Your task to perform on an android device: toggle notification dots Image 0: 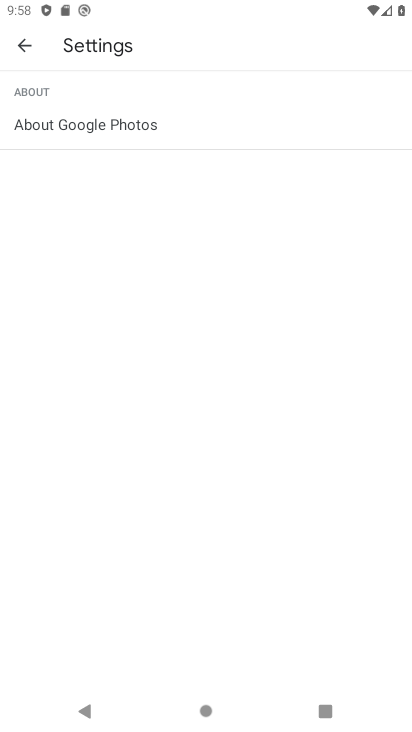
Step 0: press home button
Your task to perform on an android device: toggle notification dots Image 1: 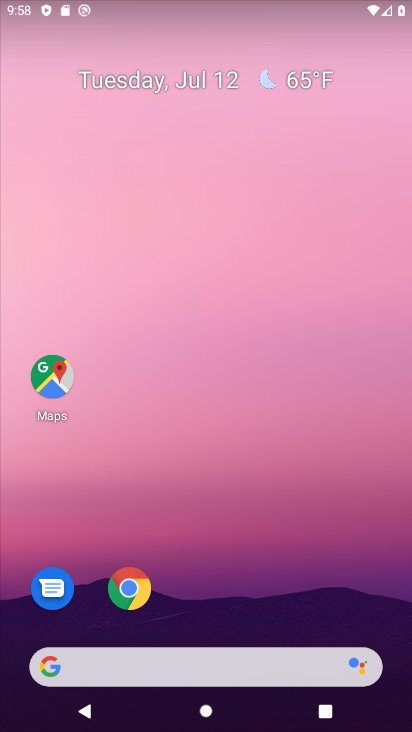
Step 1: drag from (23, 707) to (238, 160)
Your task to perform on an android device: toggle notification dots Image 2: 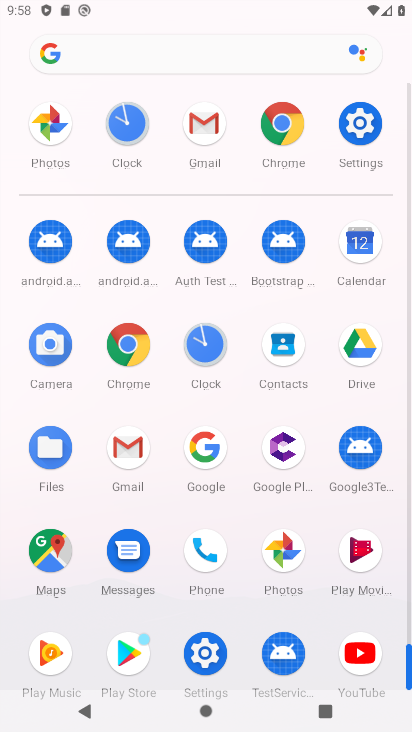
Step 2: click (211, 659)
Your task to perform on an android device: toggle notification dots Image 3: 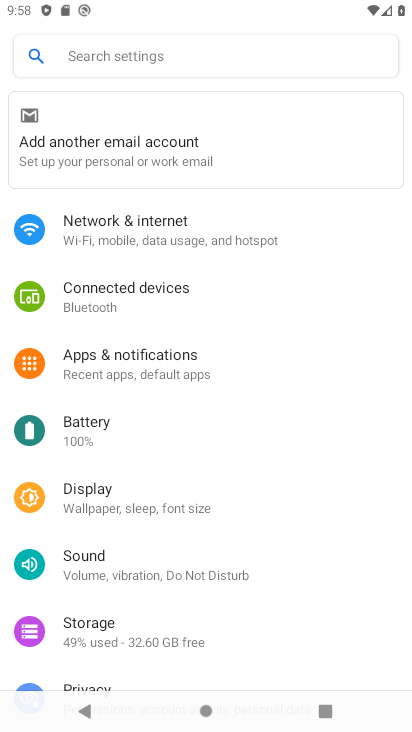
Step 3: click (147, 354)
Your task to perform on an android device: toggle notification dots Image 4: 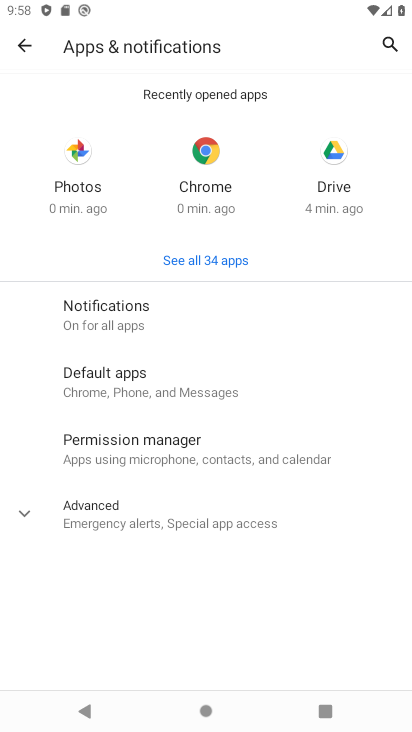
Step 4: click (142, 520)
Your task to perform on an android device: toggle notification dots Image 5: 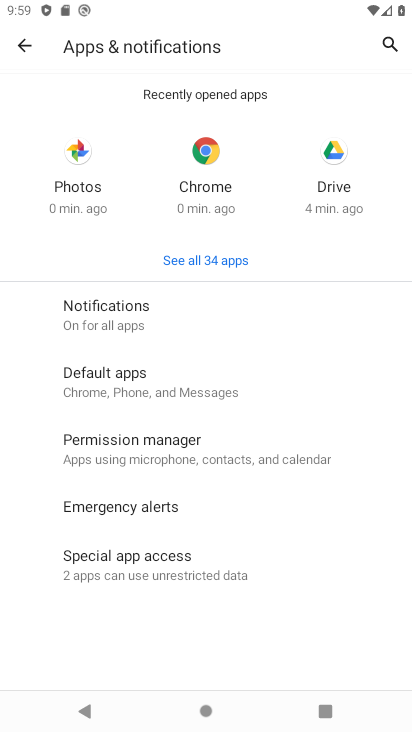
Step 5: click (141, 317)
Your task to perform on an android device: toggle notification dots Image 6: 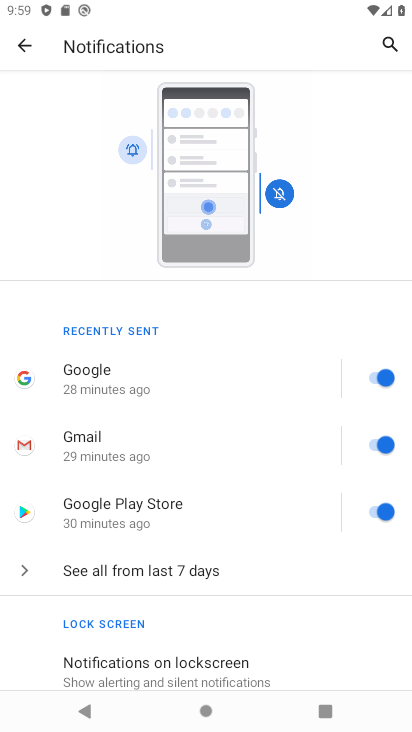
Step 6: drag from (295, 414) to (294, 94)
Your task to perform on an android device: toggle notification dots Image 7: 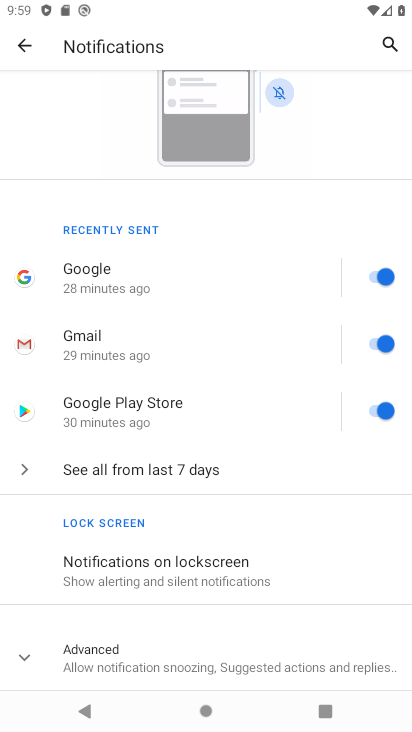
Step 7: click (201, 678)
Your task to perform on an android device: toggle notification dots Image 8: 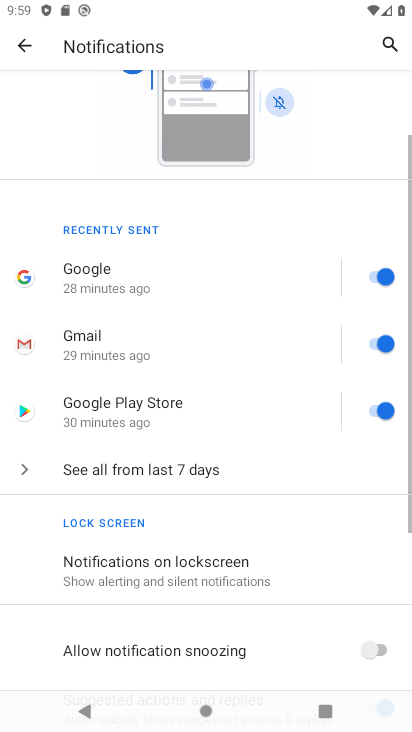
Step 8: task complete